Your task to perform on an android device: stop showing notifications on the lock screen Image 0: 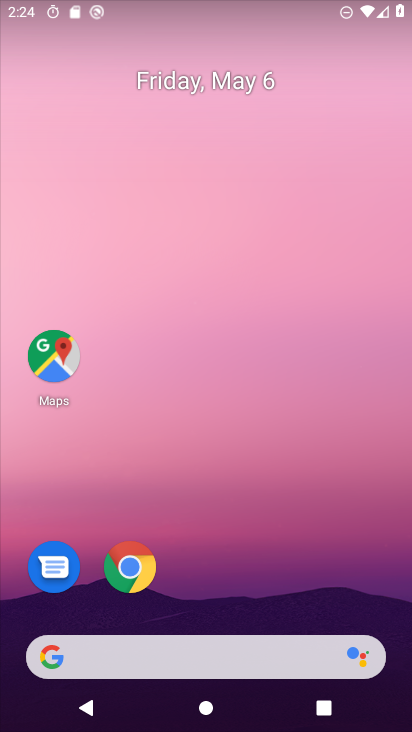
Step 0: drag from (275, 671) to (356, 278)
Your task to perform on an android device: stop showing notifications on the lock screen Image 1: 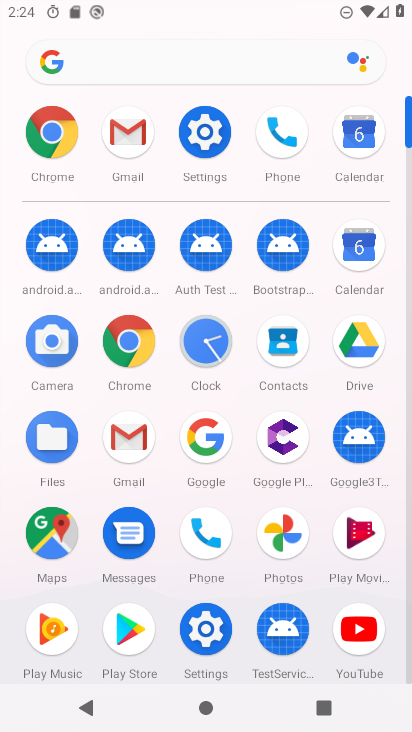
Step 1: click (216, 623)
Your task to perform on an android device: stop showing notifications on the lock screen Image 2: 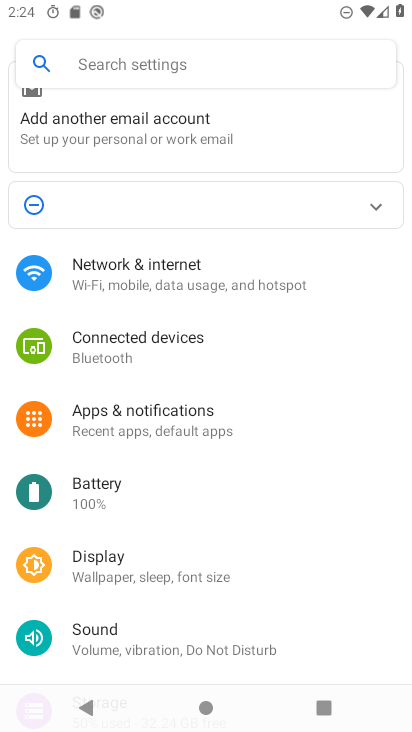
Step 2: click (141, 67)
Your task to perform on an android device: stop showing notifications on the lock screen Image 3: 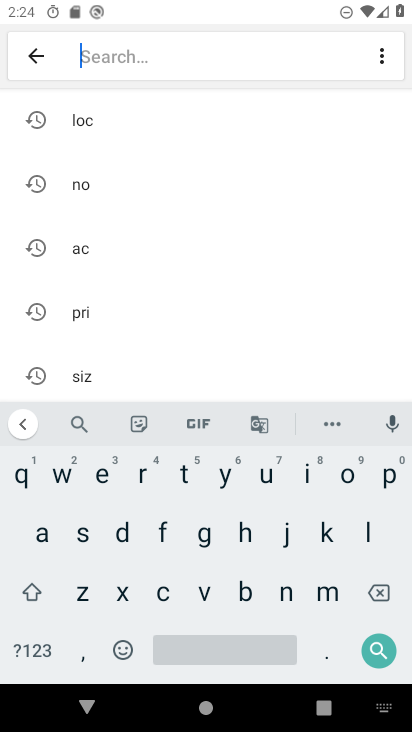
Step 3: click (102, 128)
Your task to perform on an android device: stop showing notifications on the lock screen Image 4: 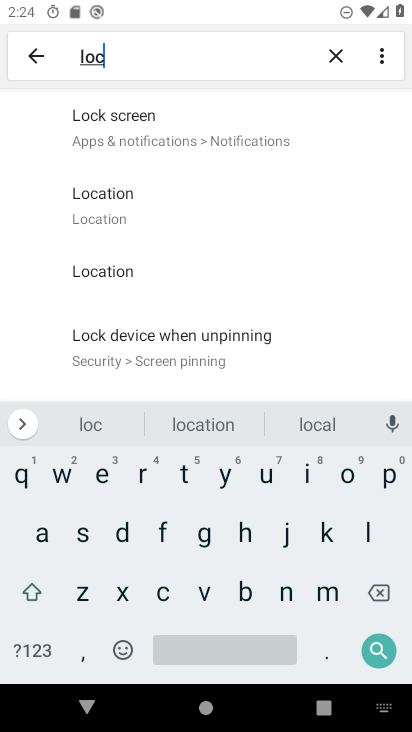
Step 4: click (116, 134)
Your task to perform on an android device: stop showing notifications on the lock screen Image 5: 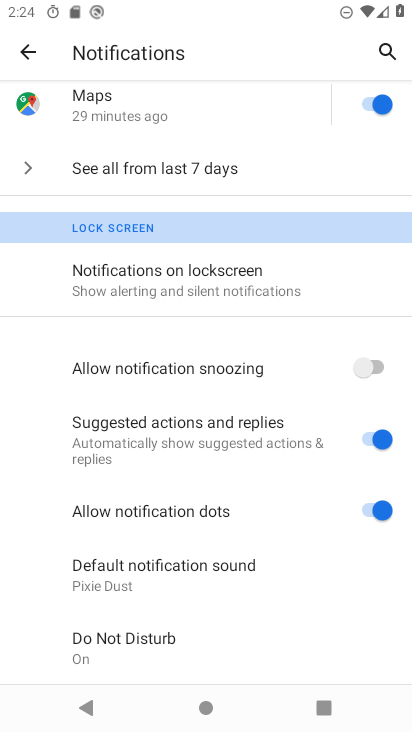
Step 5: click (154, 287)
Your task to perform on an android device: stop showing notifications on the lock screen Image 6: 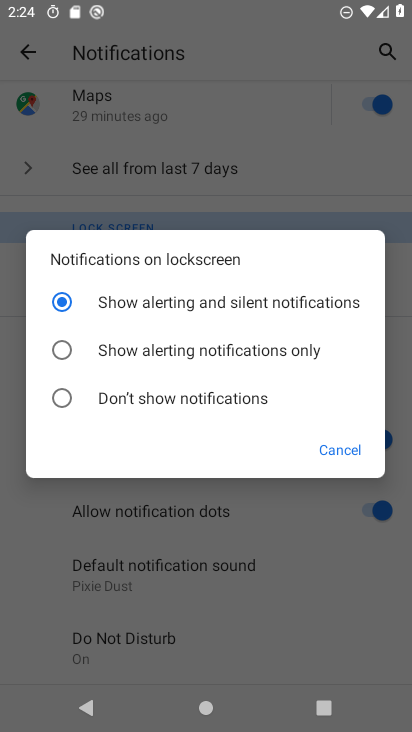
Step 6: task complete